Your task to perform on an android device: turn notification dots off Image 0: 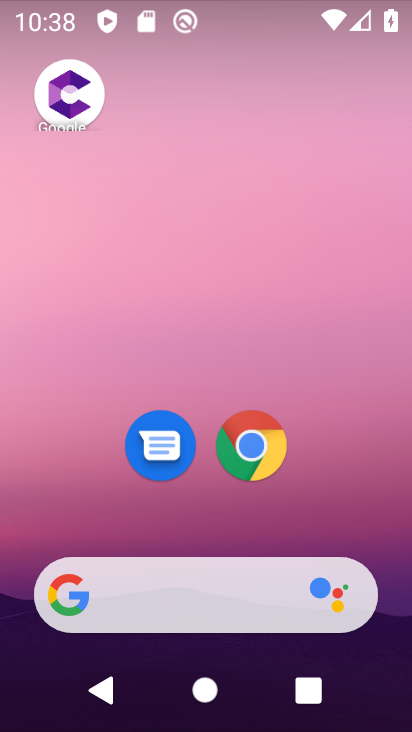
Step 0: drag from (246, 542) to (344, 16)
Your task to perform on an android device: turn notification dots off Image 1: 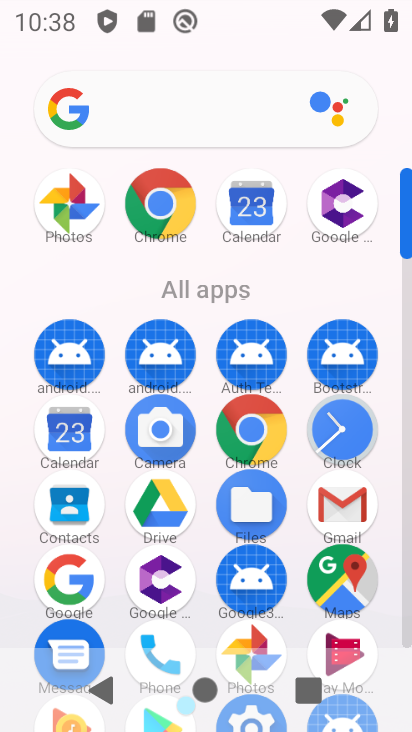
Step 1: drag from (298, 626) to (330, 433)
Your task to perform on an android device: turn notification dots off Image 2: 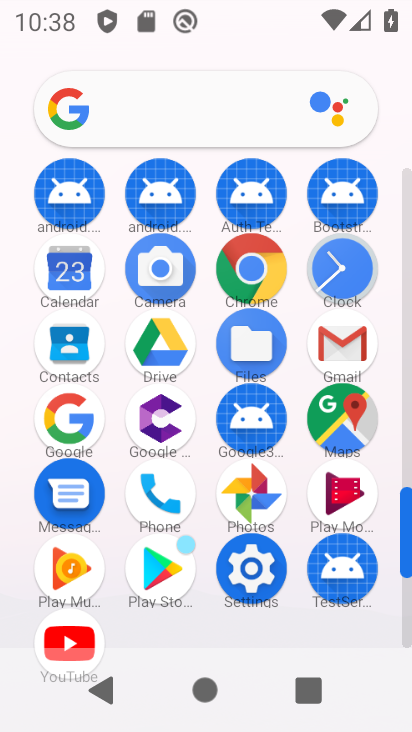
Step 2: click (255, 571)
Your task to perform on an android device: turn notification dots off Image 3: 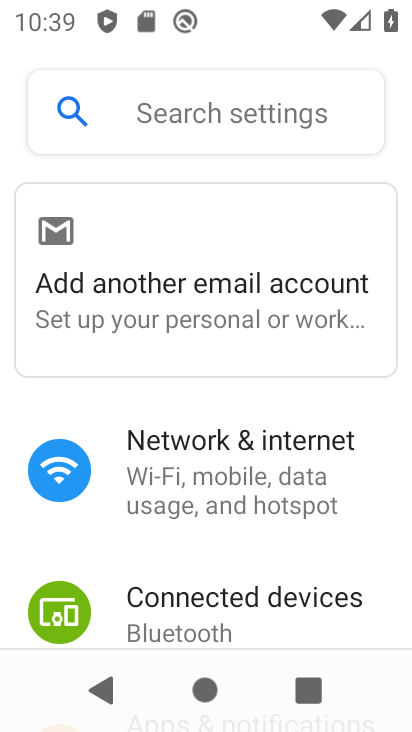
Step 3: drag from (228, 567) to (275, 314)
Your task to perform on an android device: turn notification dots off Image 4: 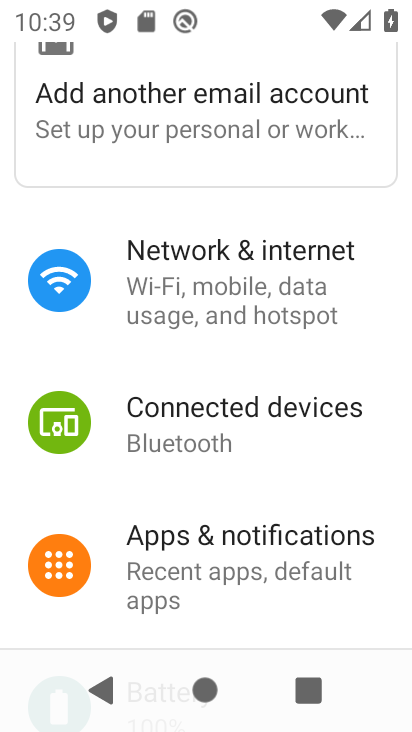
Step 4: click (248, 534)
Your task to perform on an android device: turn notification dots off Image 5: 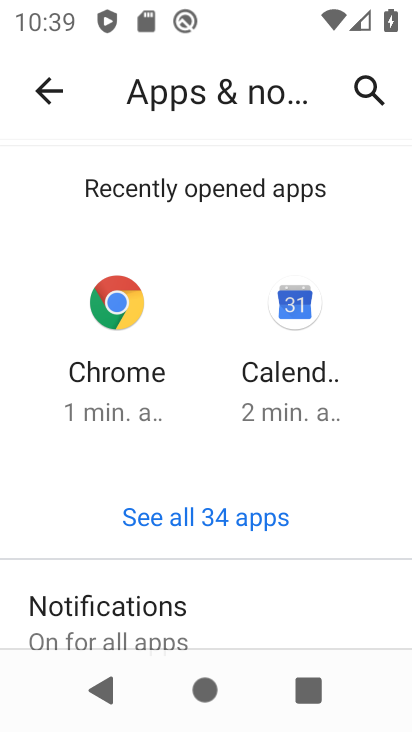
Step 5: drag from (242, 583) to (351, 318)
Your task to perform on an android device: turn notification dots off Image 6: 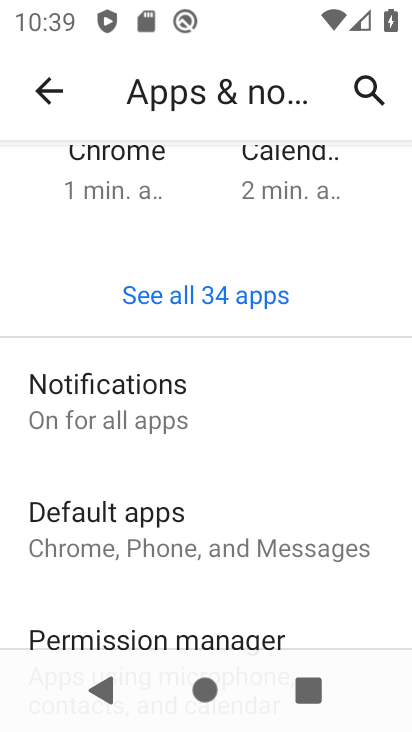
Step 6: click (177, 384)
Your task to perform on an android device: turn notification dots off Image 7: 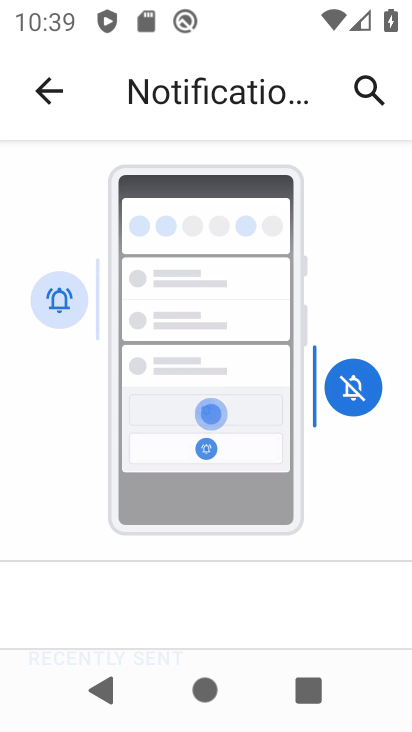
Step 7: drag from (246, 573) to (405, 233)
Your task to perform on an android device: turn notification dots off Image 8: 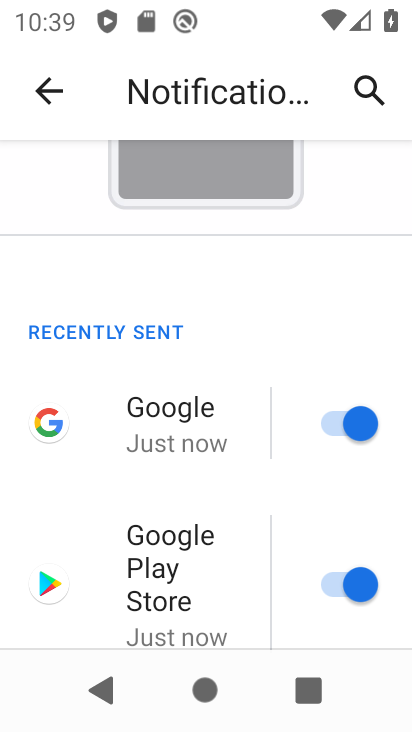
Step 8: drag from (225, 607) to (341, 324)
Your task to perform on an android device: turn notification dots off Image 9: 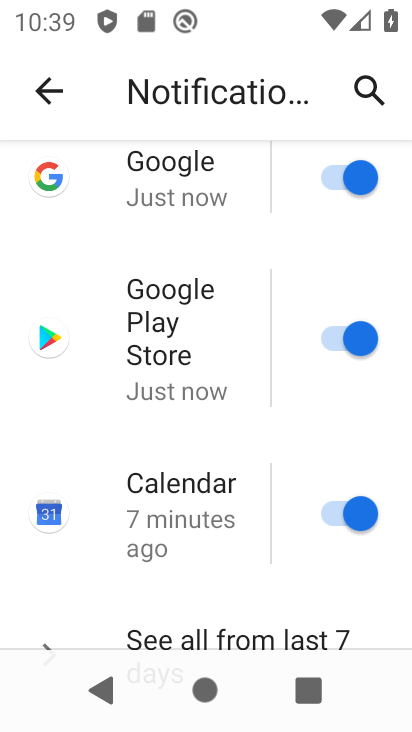
Step 9: drag from (246, 633) to (367, 384)
Your task to perform on an android device: turn notification dots off Image 10: 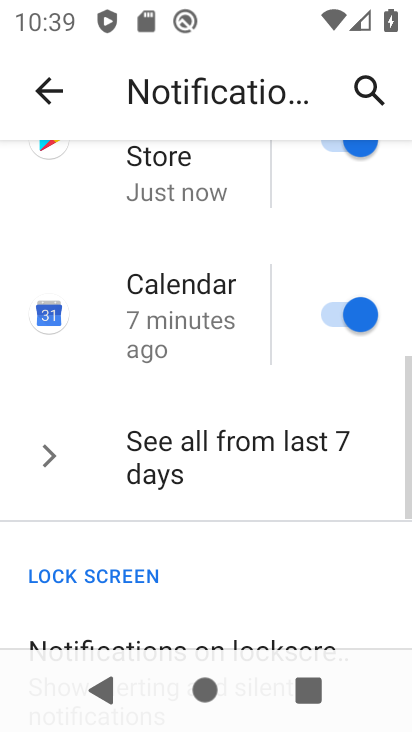
Step 10: drag from (257, 577) to (393, 320)
Your task to perform on an android device: turn notification dots off Image 11: 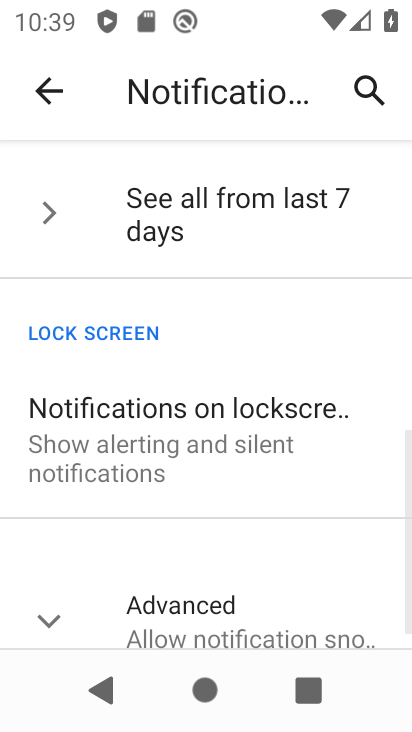
Step 11: drag from (263, 538) to (377, 319)
Your task to perform on an android device: turn notification dots off Image 12: 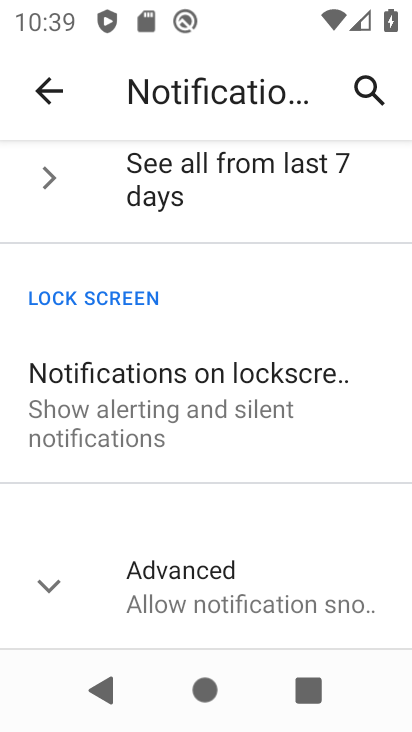
Step 12: click (37, 568)
Your task to perform on an android device: turn notification dots off Image 13: 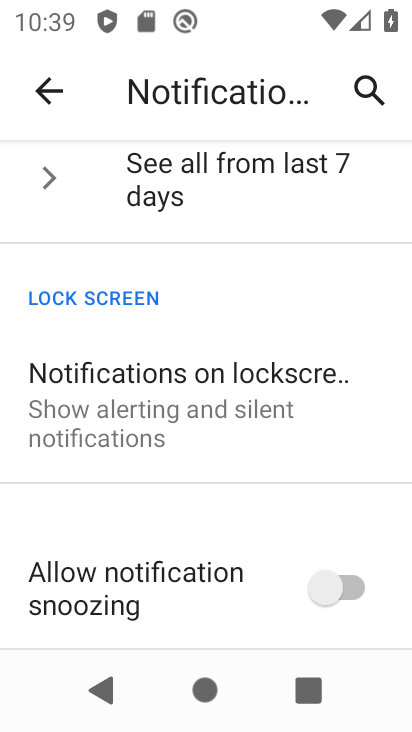
Step 13: drag from (177, 568) to (348, 366)
Your task to perform on an android device: turn notification dots off Image 14: 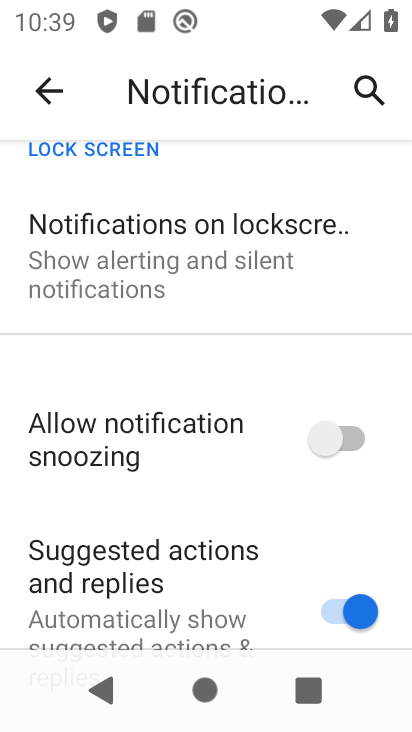
Step 14: drag from (248, 642) to (349, 341)
Your task to perform on an android device: turn notification dots off Image 15: 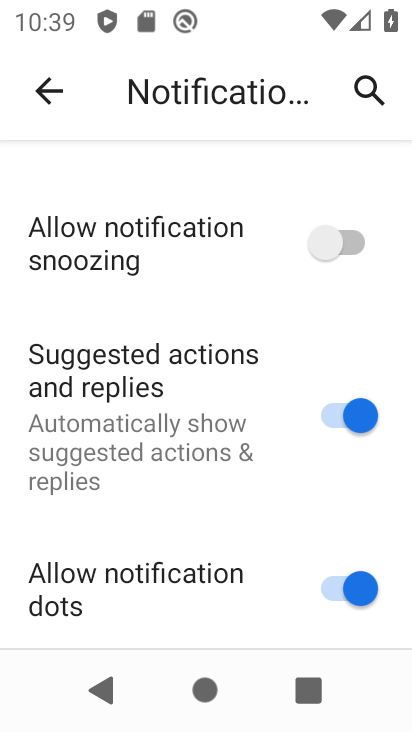
Step 15: click (329, 590)
Your task to perform on an android device: turn notification dots off Image 16: 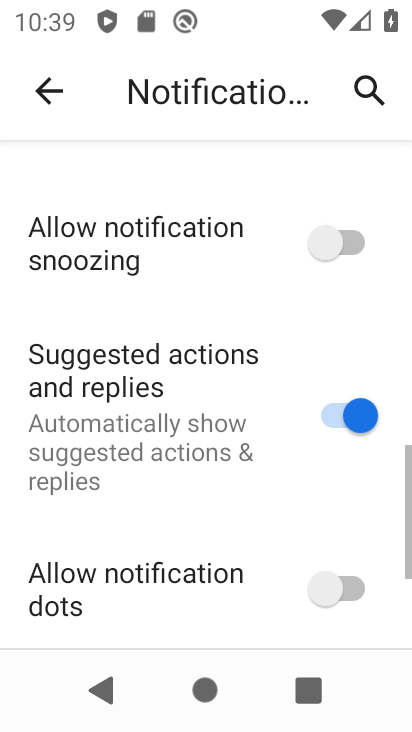
Step 16: task complete